Your task to perform on an android device: change alarm snooze length Image 0: 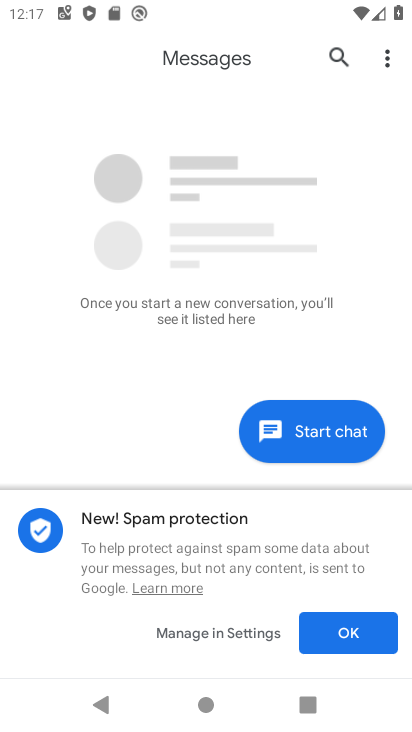
Step 0: click (311, 632)
Your task to perform on an android device: change alarm snooze length Image 1: 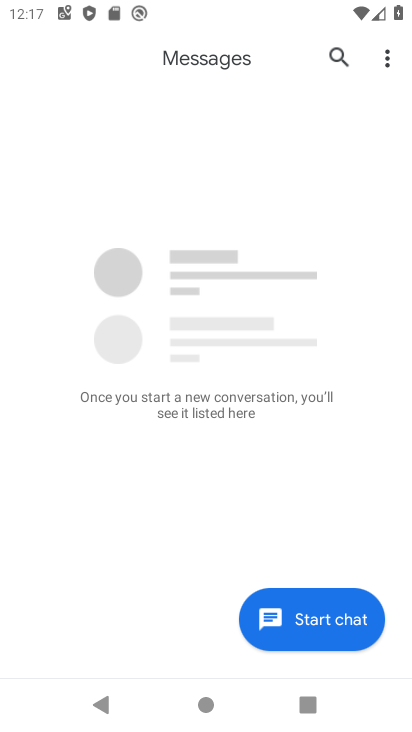
Step 1: press home button
Your task to perform on an android device: change alarm snooze length Image 2: 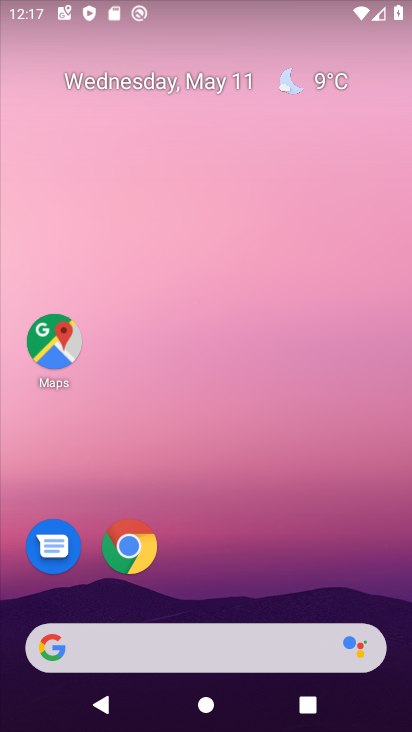
Step 2: drag from (265, 705) to (273, 572)
Your task to perform on an android device: change alarm snooze length Image 3: 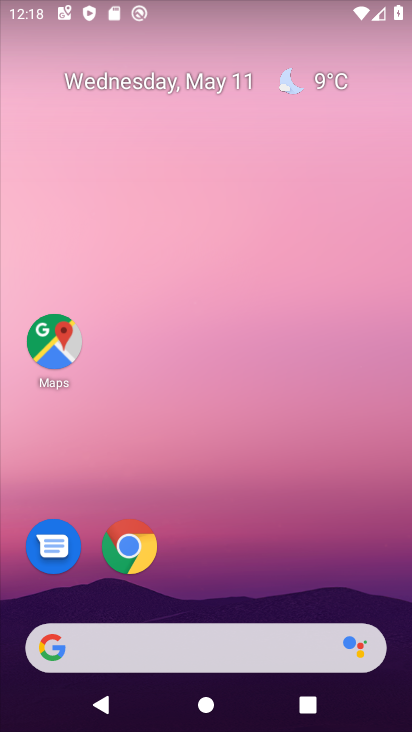
Step 3: drag from (375, 643) to (266, 0)
Your task to perform on an android device: change alarm snooze length Image 4: 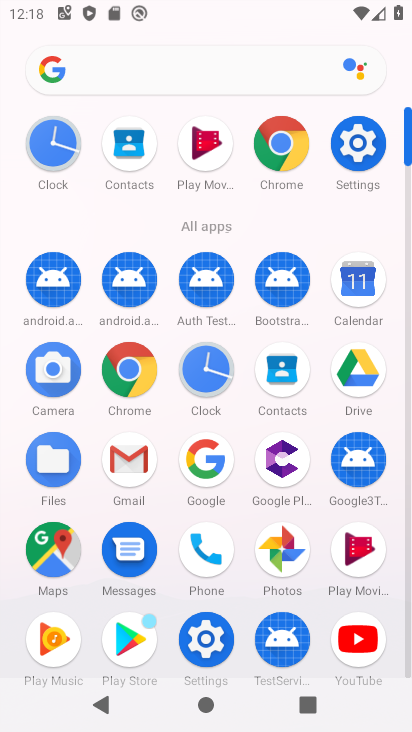
Step 4: click (218, 365)
Your task to perform on an android device: change alarm snooze length Image 5: 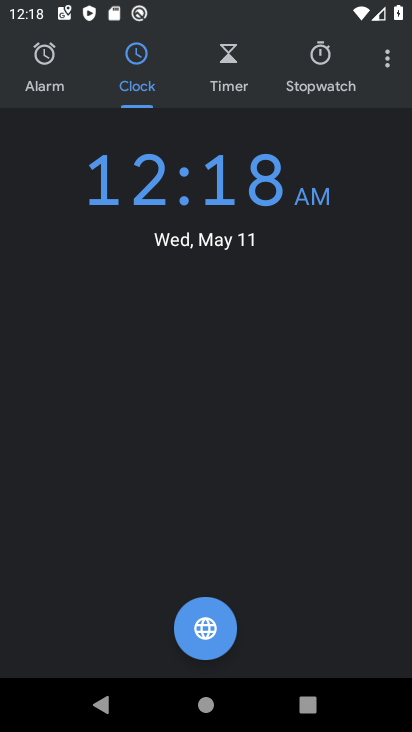
Step 5: drag from (398, 56) to (353, 250)
Your task to perform on an android device: change alarm snooze length Image 6: 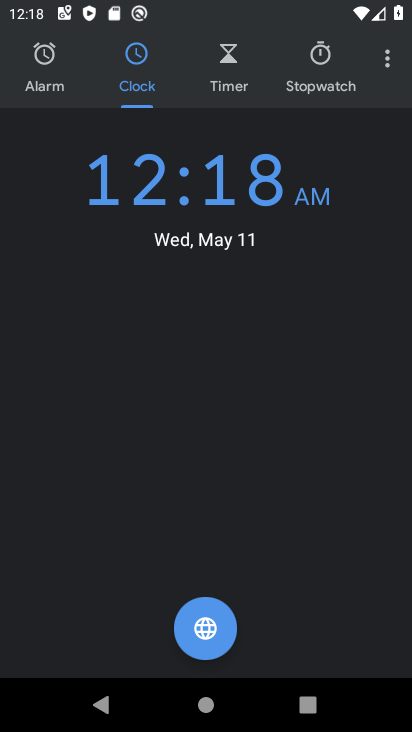
Step 6: click (374, 58)
Your task to perform on an android device: change alarm snooze length Image 7: 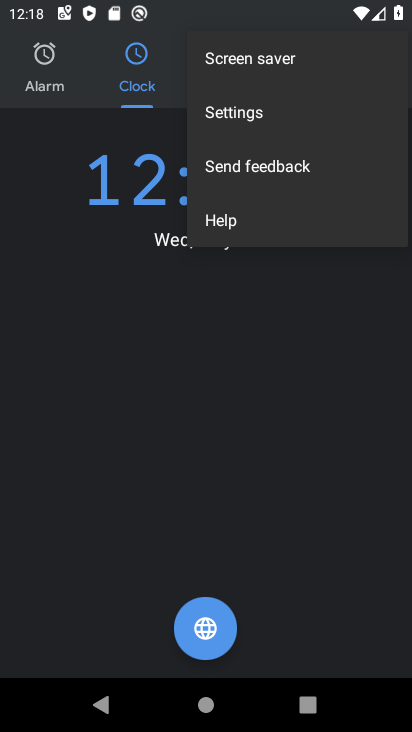
Step 7: click (260, 119)
Your task to perform on an android device: change alarm snooze length Image 8: 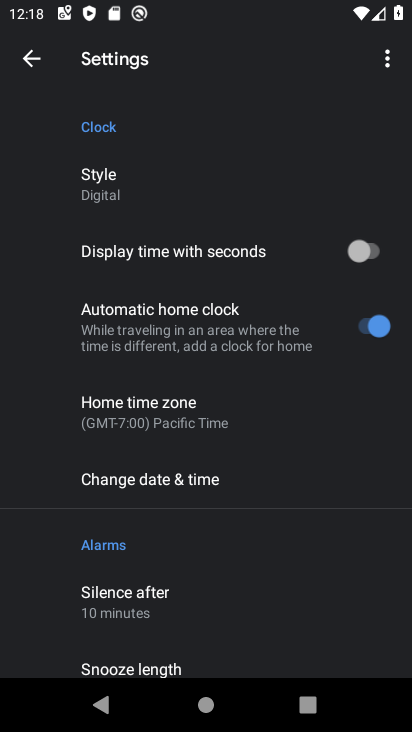
Step 8: drag from (265, 550) to (275, 316)
Your task to perform on an android device: change alarm snooze length Image 9: 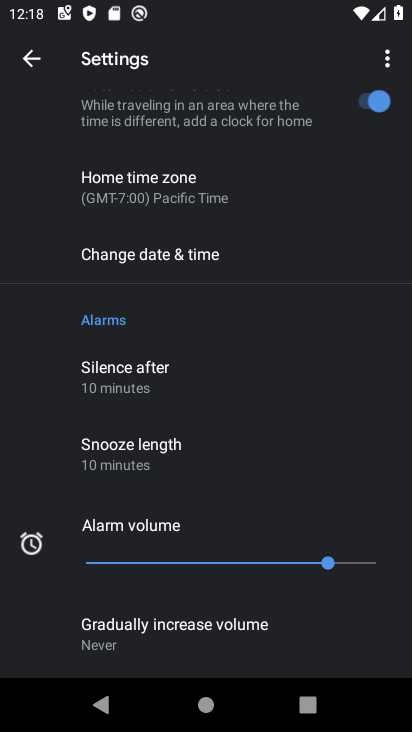
Step 9: click (176, 449)
Your task to perform on an android device: change alarm snooze length Image 10: 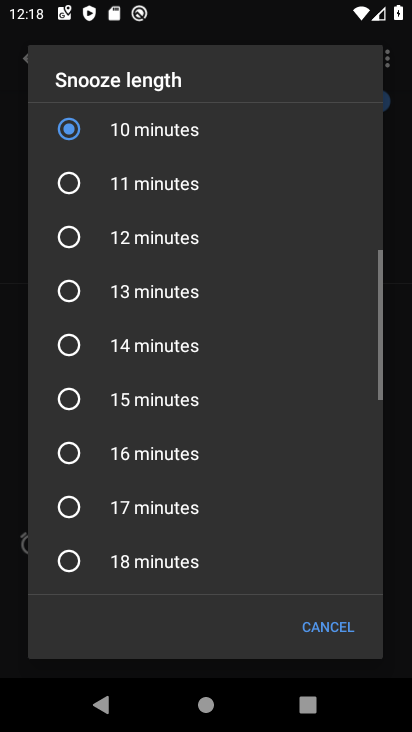
Step 10: click (139, 238)
Your task to perform on an android device: change alarm snooze length Image 11: 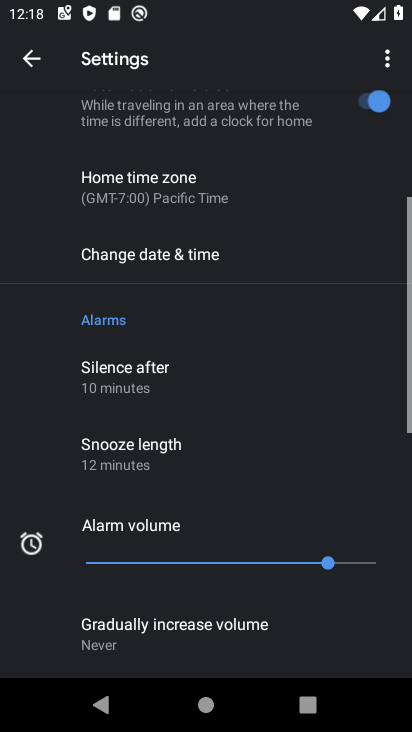
Step 11: task complete